Your task to perform on an android device: Go to ESPN.com Image 0: 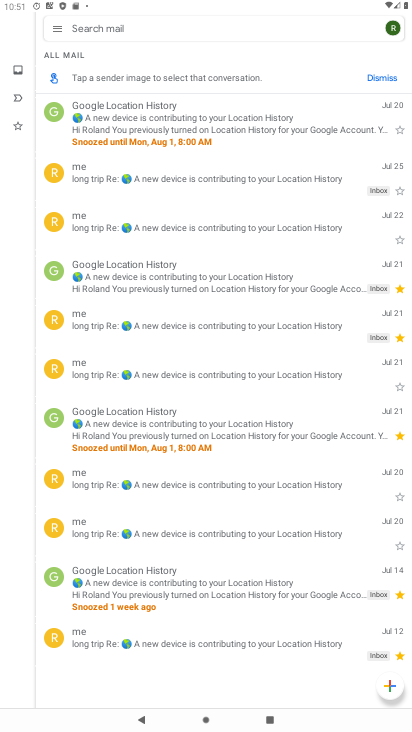
Step 0: press home button
Your task to perform on an android device: Go to ESPN.com Image 1: 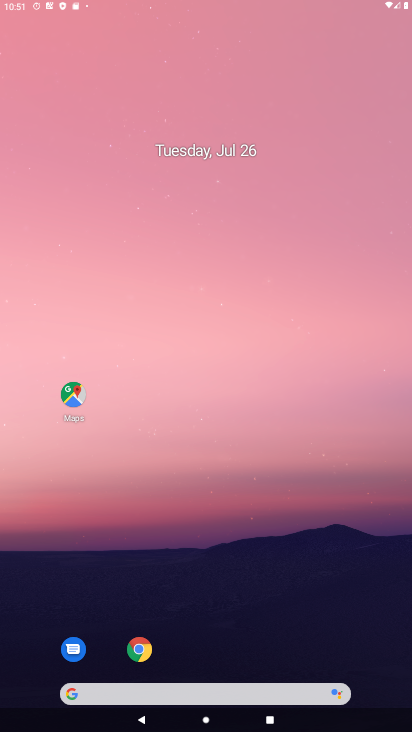
Step 1: drag from (180, 621) to (248, 56)
Your task to perform on an android device: Go to ESPN.com Image 2: 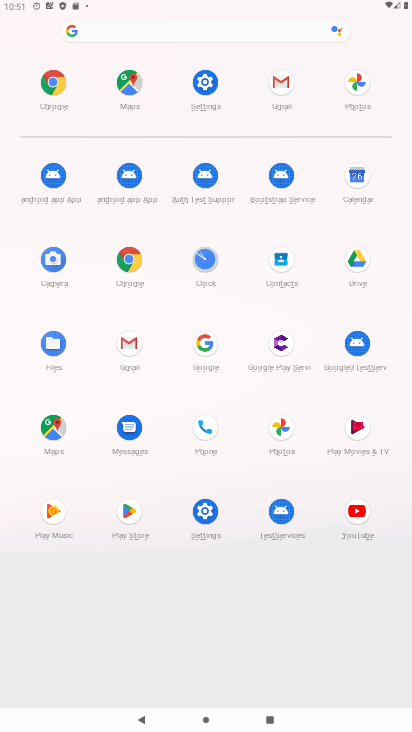
Step 2: click (116, 31)
Your task to perform on an android device: Go to ESPN.com Image 3: 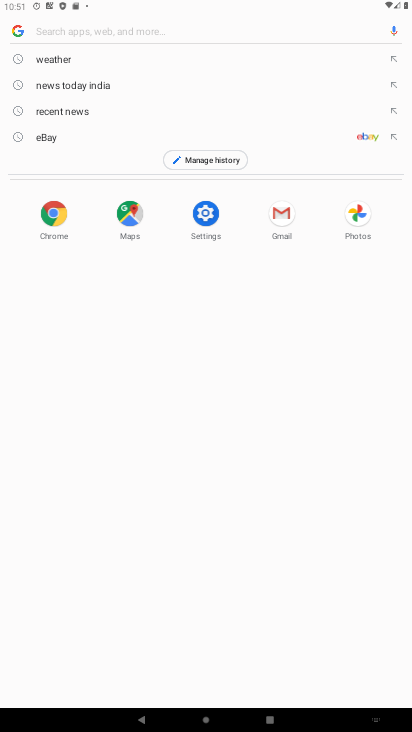
Step 3: type "ESPN.com"
Your task to perform on an android device: Go to ESPN.com Image 4: 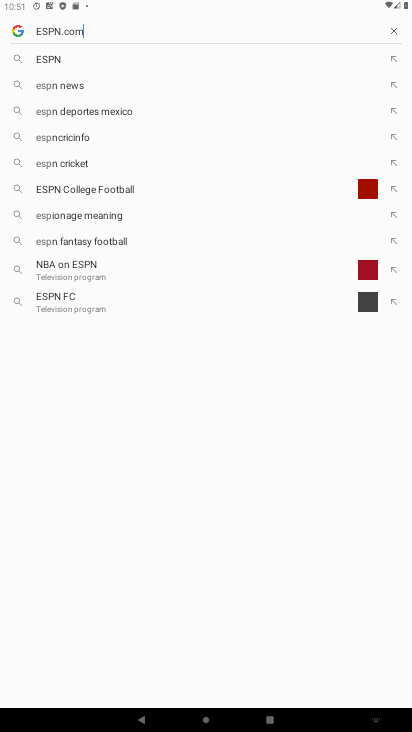
Step 4: type ""
Your task to perform on an android device: Go to ESPN.com Image 5: 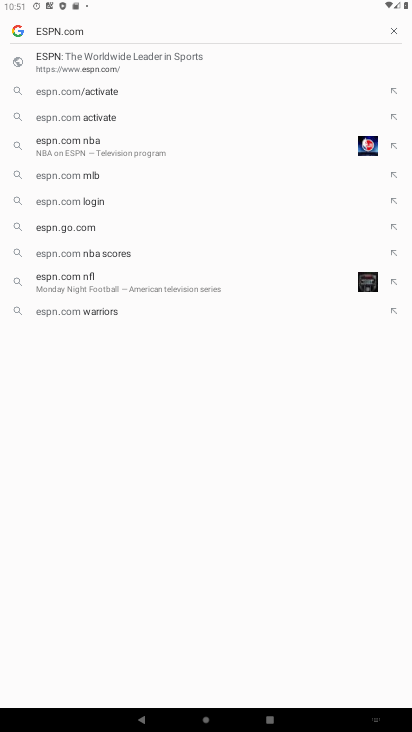
Step 5: click (62, 68)
Your task to perform on an android device: Go to ESPN.com Image 6: 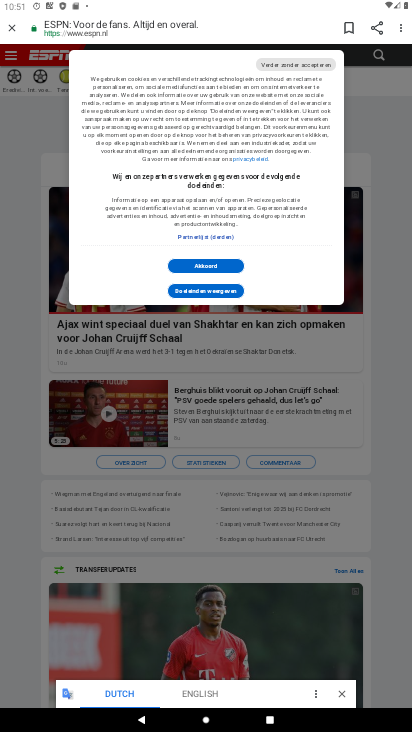
Step 6: task complete